Your task to perform on an android device: turn off airplane mode Image 0: 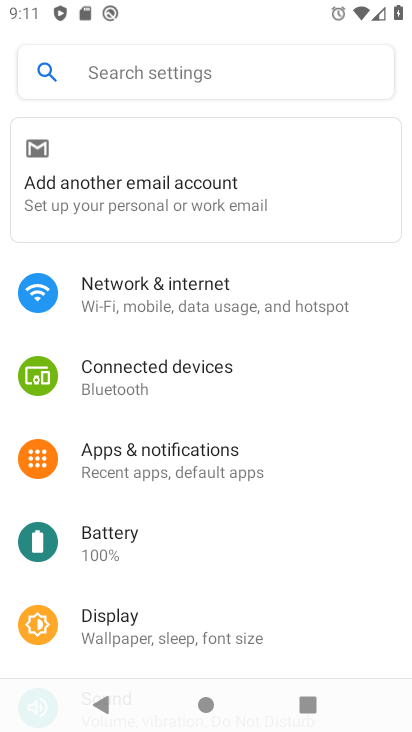
Step 0: click (144, 305)
Your task to perform on an android device: turn off airplane mode Image 1: 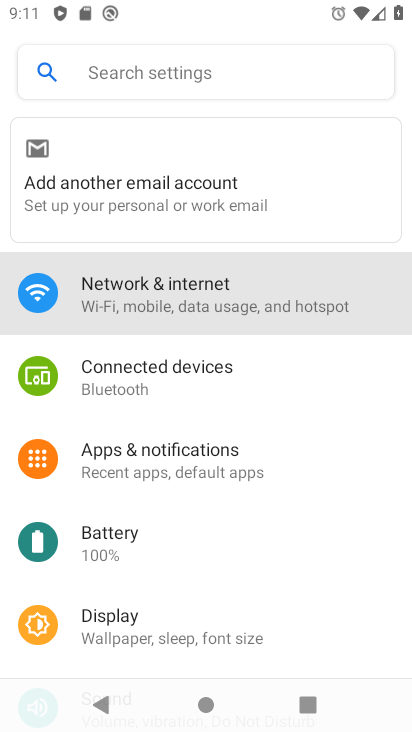
Step 1: click (156, 300)
Your task to perform on an android device: turn off airplane mode Image 2: 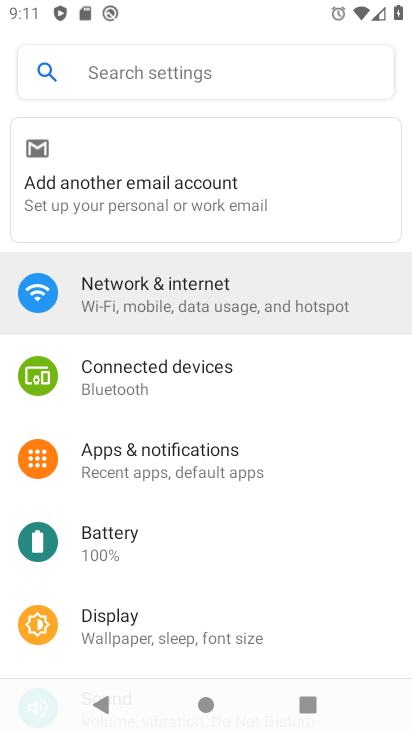
Step 2: click (156, 300)
Your task to perform on an android device: turn off airplane mode Image 3: 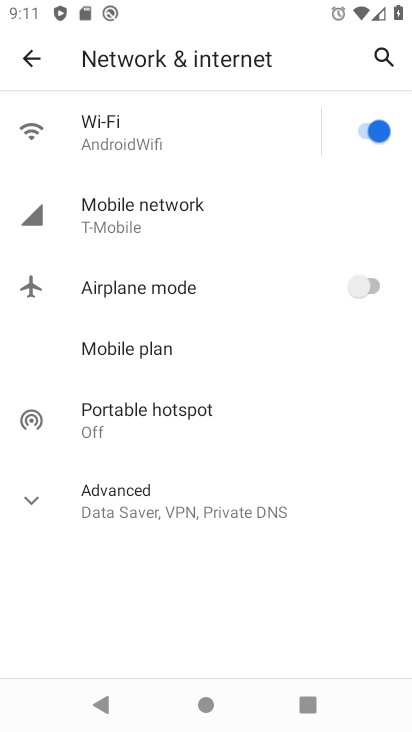
Step 3: click (336, 294)
Your task to perform on an android device: turn off airplane mode Image 4: 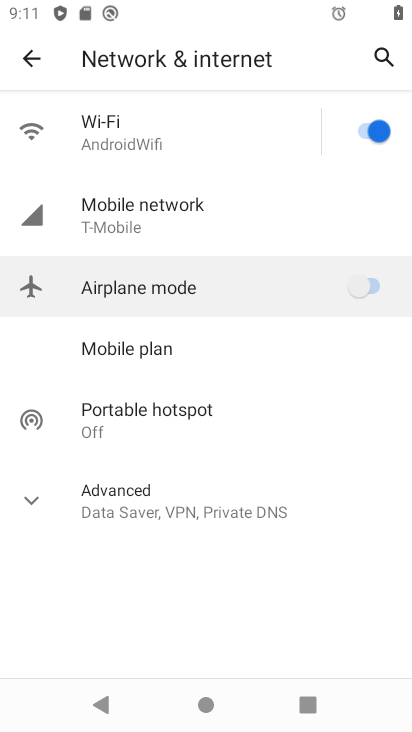
Step 4: click (337, 294)
Your task to perform on an android device: turn off airplane mode Image 5: 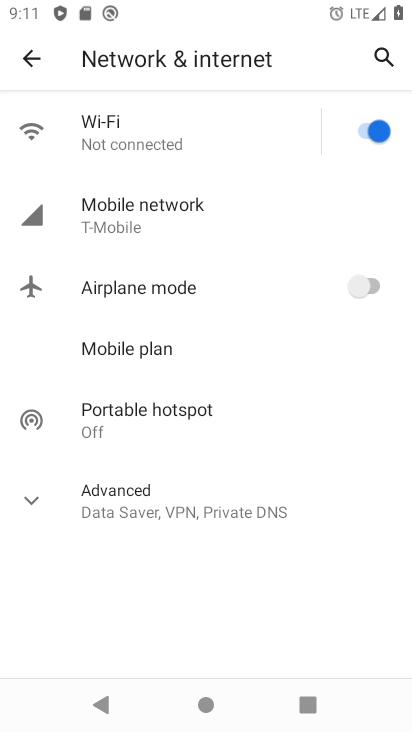
Step 5: task complete